Your task to perform on an android device: empty trash in the gmail app Image 0: 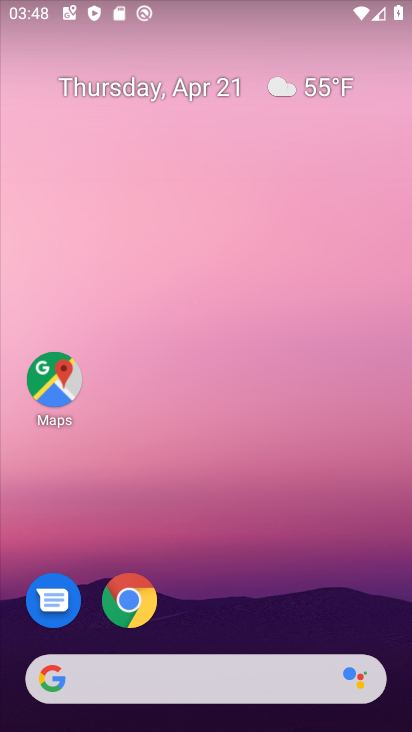
Step 0: drag from (243, 627) to (172, 27)
Your task to perform on an android device: empty trash in the gmail app Image 1: 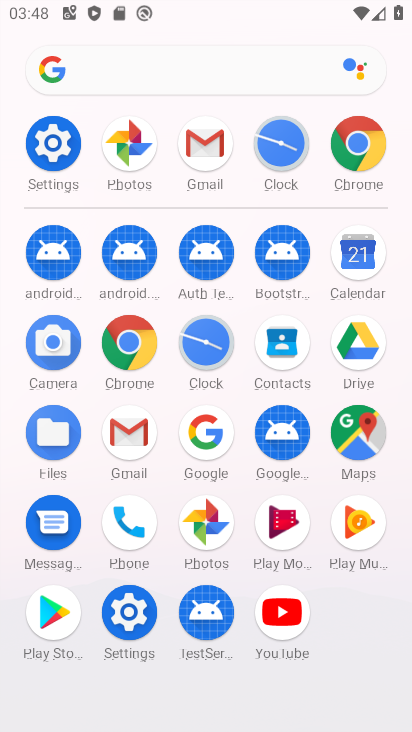
Step 1: click (133, 442)
Your task to perform on an android device: empty trash in the gmail app Image 2: 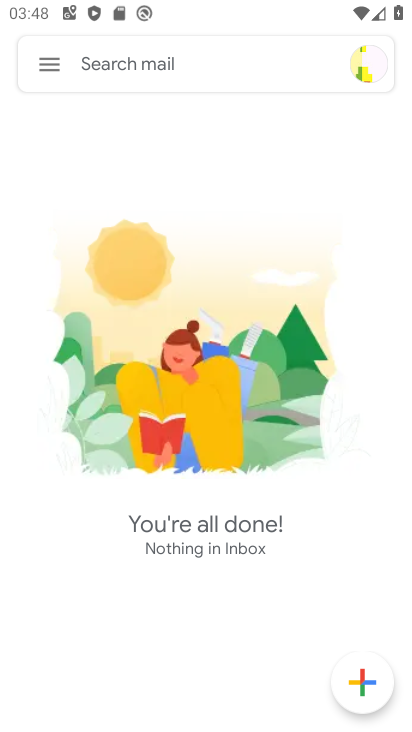
Step 2: click (54, 71)
Your task to perform on an android device: empty trash in the gmail app Image 3: 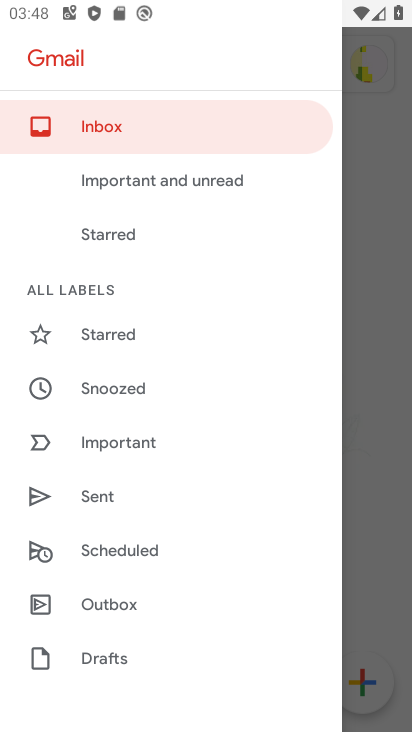
Step 3: drag from (182, 581) to (182, 391)
Your task to perform on an android device: empty trash in the gmail app Image 4: 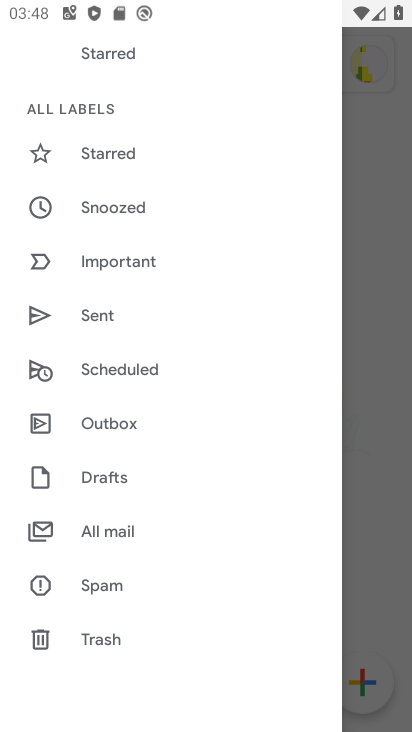
Step 4: drag from (204, 614) to (202, 428)
Your task to perform on an android device: empty trash in the gmail app Image 5: 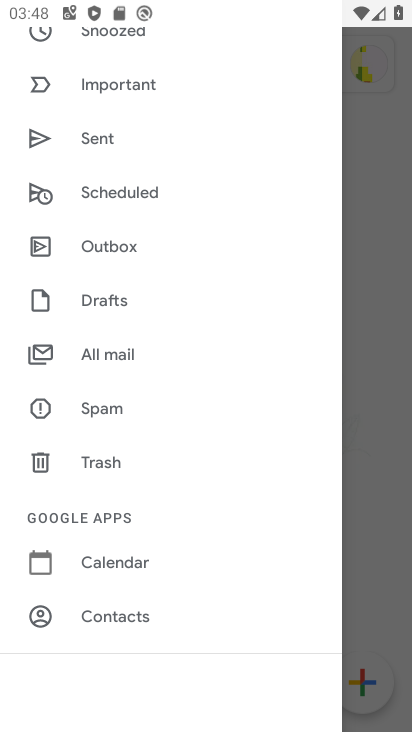
Step 5: click (173, 460)
Your task to perform on an android device: empty trash in the gmail app Image 6: 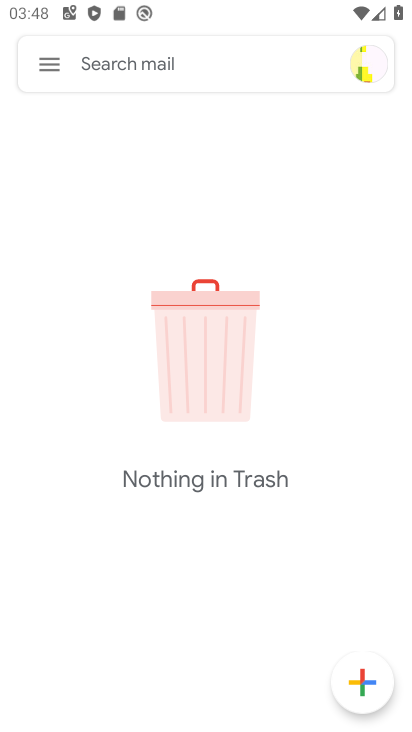
Step 6: task complete